Your task to perform on an android device: change keyboard looks Image 0: 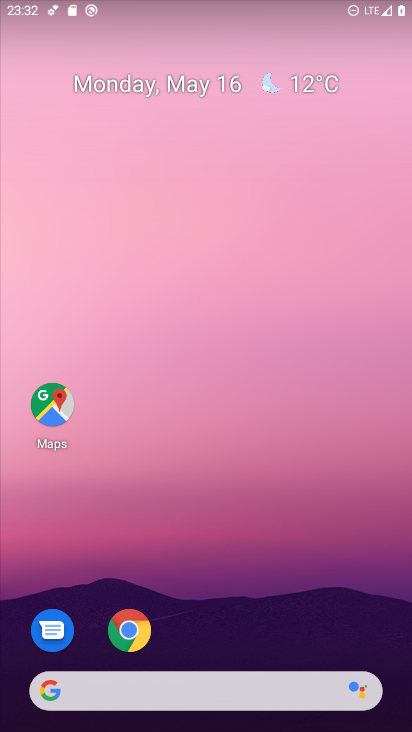
Step 0: drag from (233, 607) to (254, 130)
Your task to perform on an android device: change keyboard looks Image 1: 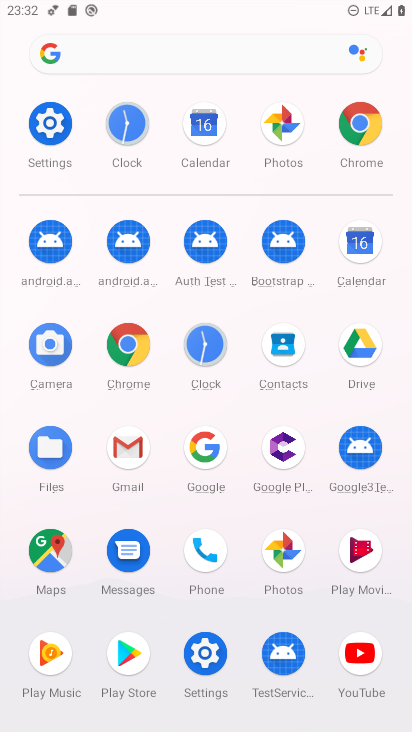
Step 1: click (57, 128)
Your task to perform on an android device: change keyboard looks Image 2: 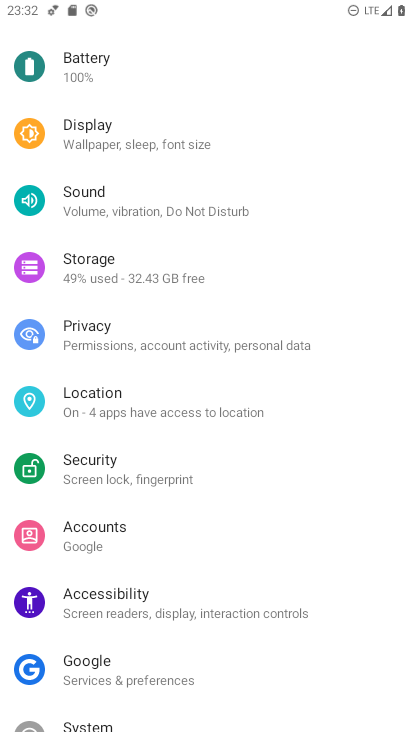
Step 2: drag from (186, 608) to (190, 473)
Your task to perform on an android device: change keyboard looks Image 3: 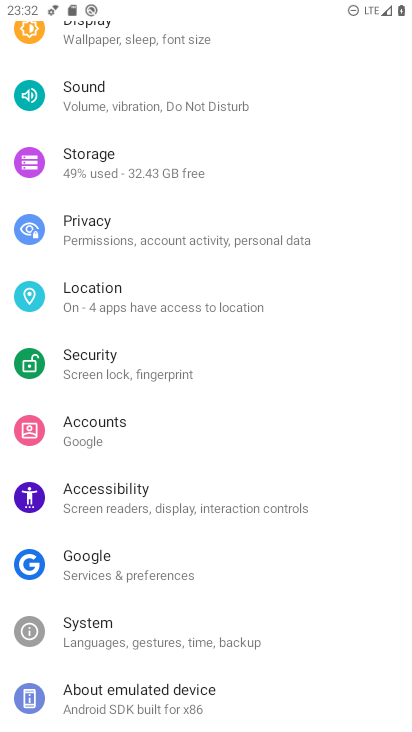
Step 3: click (158, 632)
Your task to perform on an android device: change keyboard looks Image 4: 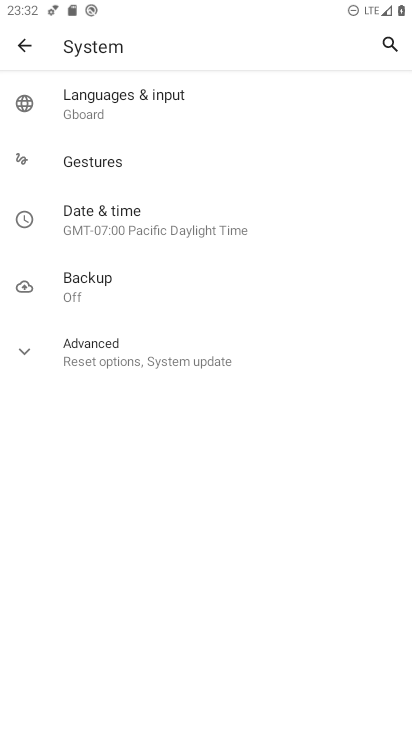
Step 4: click (130, 93)
Your task to perform on an android device: change keyboard looks Image 5: 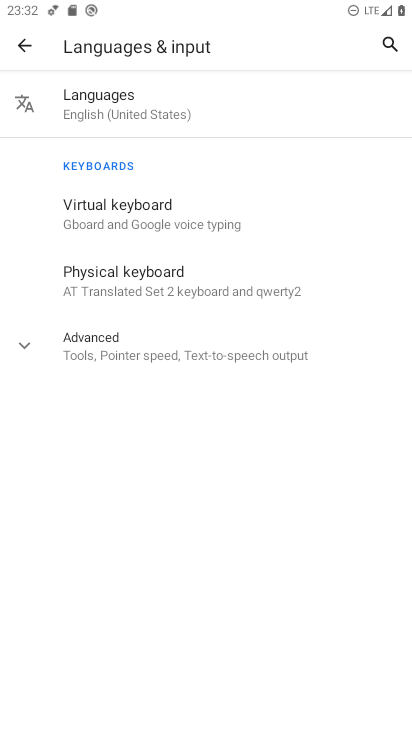
Step 5: click (135, 209)
Your task to perform on an android device: change keyboard looks Image 6: 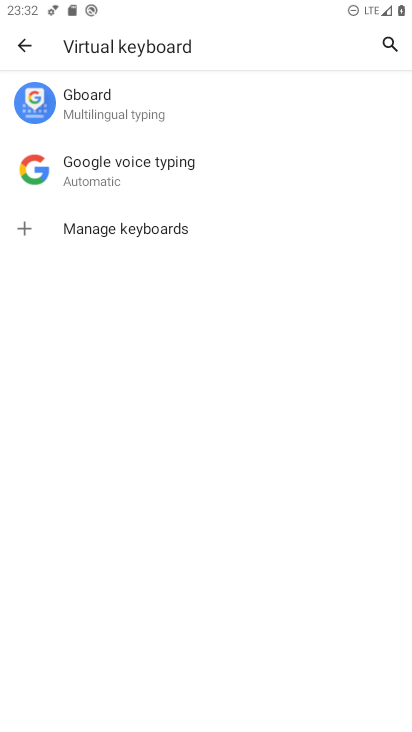
Step 6: click (129, 96)
Your task to perform on an android device: change keyboard looks Image 7: 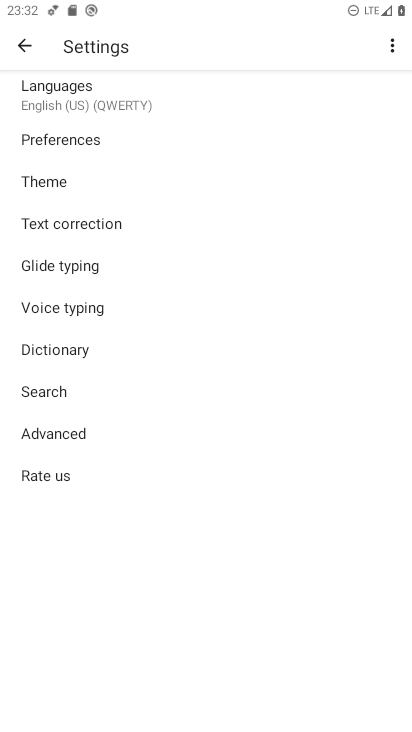
Step 7: click (75, 175)
Your task to perform on an android device: change keyboard looks Image 8: 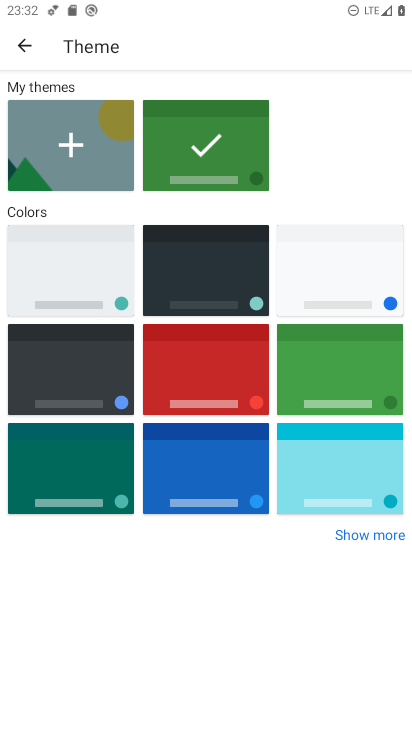
Step 8: click (323, 460)
Your task to perform on an android device: change keyboard looks Image 9: 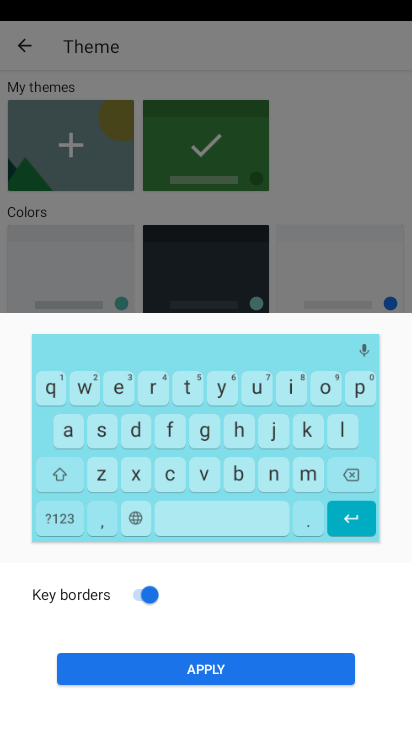
Step 9: click (269, 673)
Your task to perform on an android device: change keyboard looks Image 10: 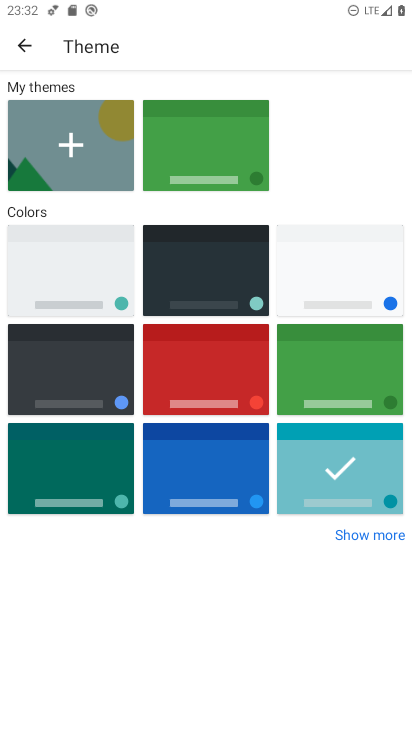
Step 10: task complete